Your task to perform on an android device: Open Google Chrome and open the bookmarks view Image 0: 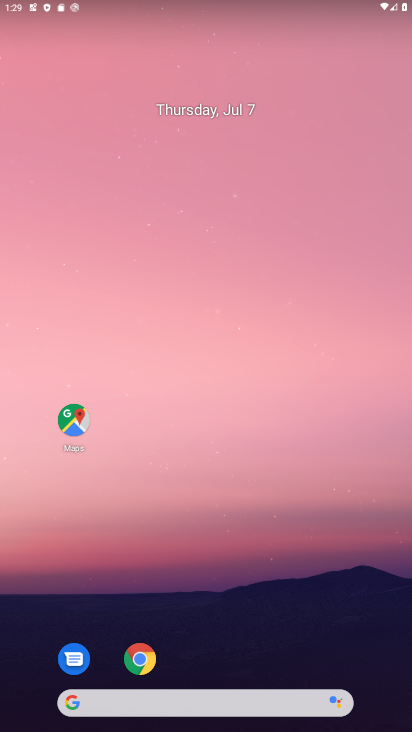
Step 0: press home button
Your task to perform on an android device: Open Google Chrome and open the bookmarks view Image 1: 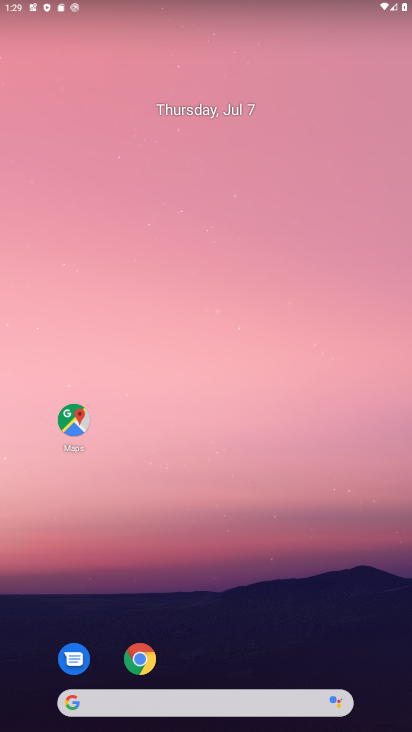
Step 1: click (140, 656)
Your task to perform on an android device: Open Google Chrome and open the bookmarks view Image 2: 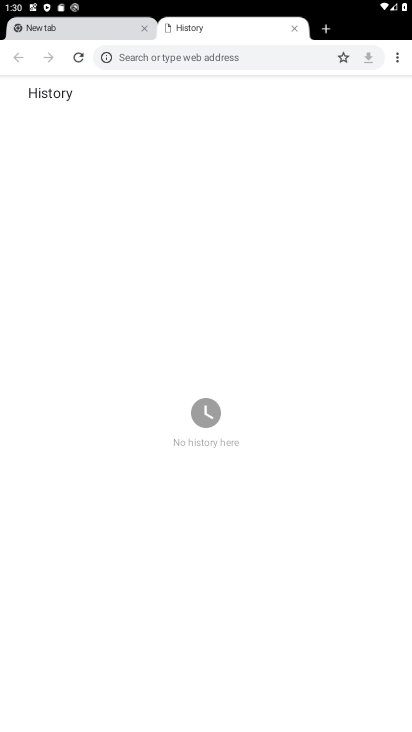
Step 2: click (295, 25)
Your task to perform on an android device: Open Google Chrome and open the bookmarks view Image 3: 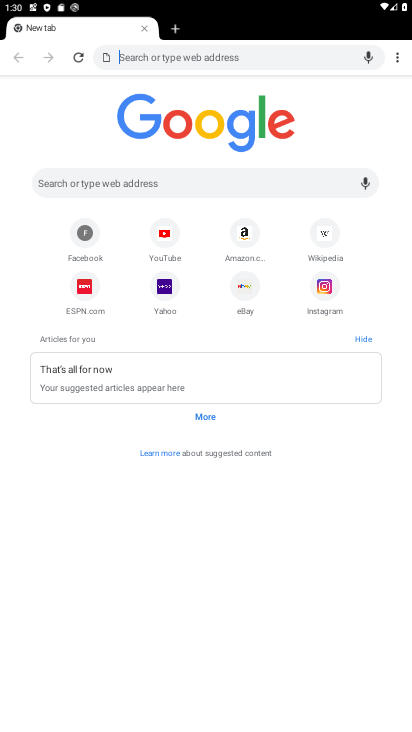
Step 3: click (397, 53)
Your task to perform on an android device: Open Google Chrome and open the bookmarks view Image 4: 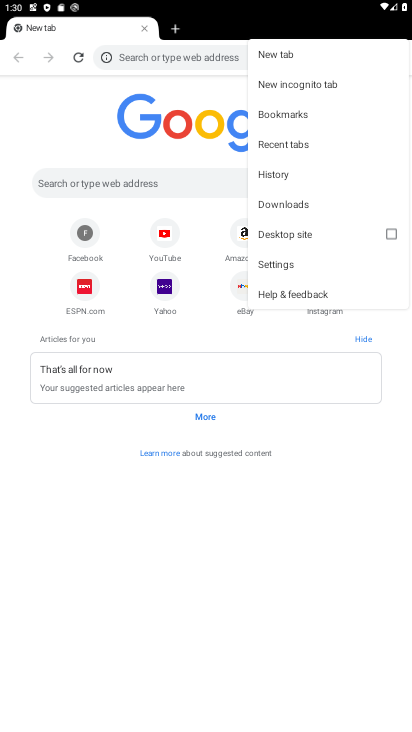
Step 4: click (317, 112)
Your task to perform on an android device: Open Google Chrome and open the bookmarks view Image 5: 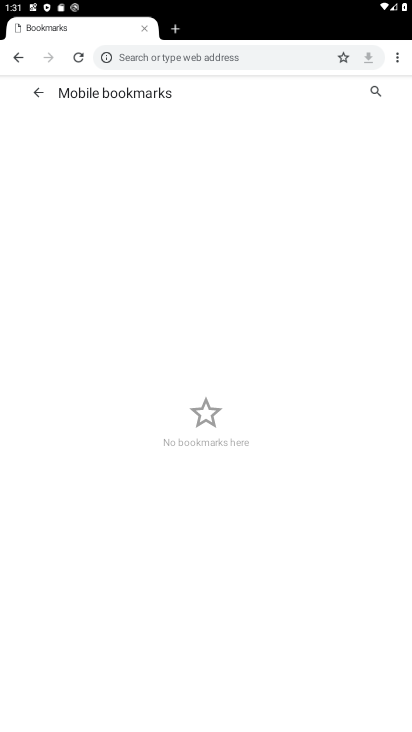
Step 5: task complete